Your task to perform on an android device: check data usage Image 0: 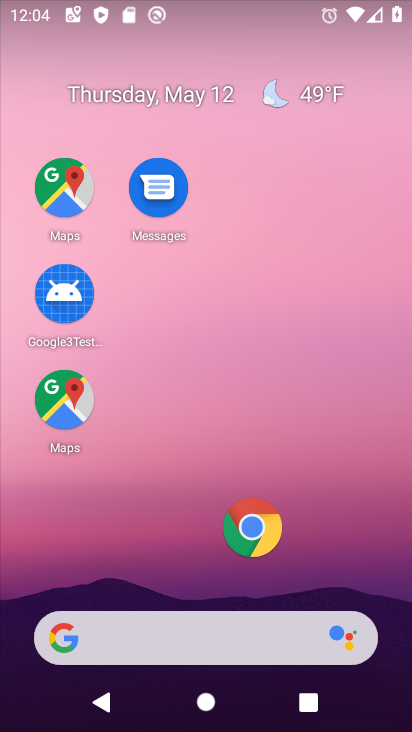
Step 0: drag from (258, 588) to (198, 188)
Your task to perform on an android device: check data usage Image 1: 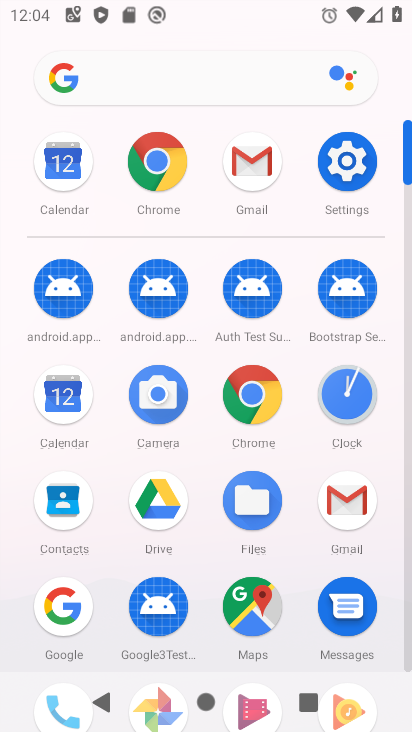
Step 1: click (338, 166)
Your task to perform on an android device: check data usage Image 2: 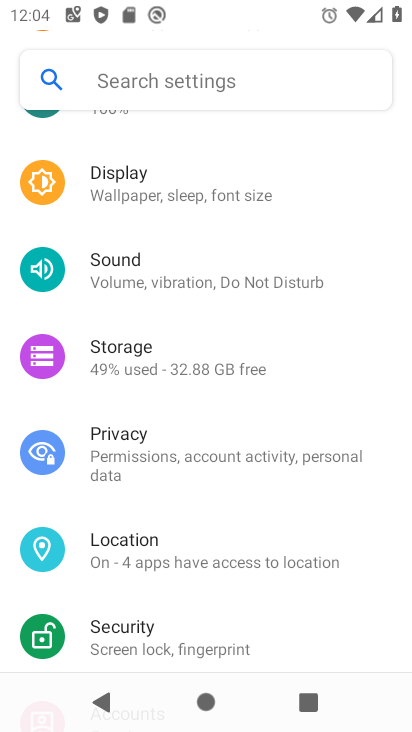
Step 2: drag from (338, 166) to (310, 465)
Your task to perform on an android device: check data usage Image 3: 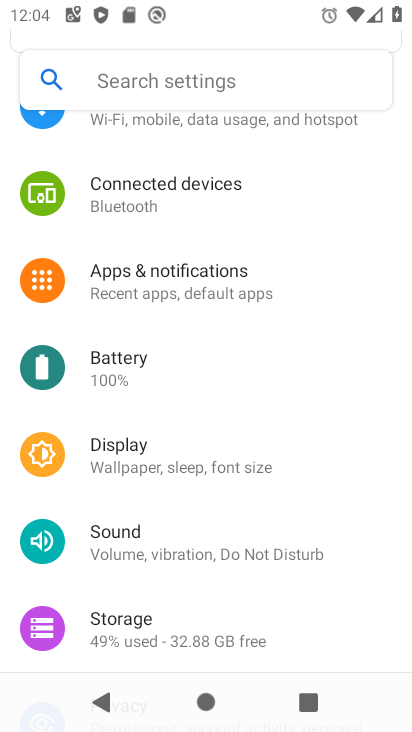
Step 3: click (217, 148)
Your task to perform on an android device: check data usage Image 4: 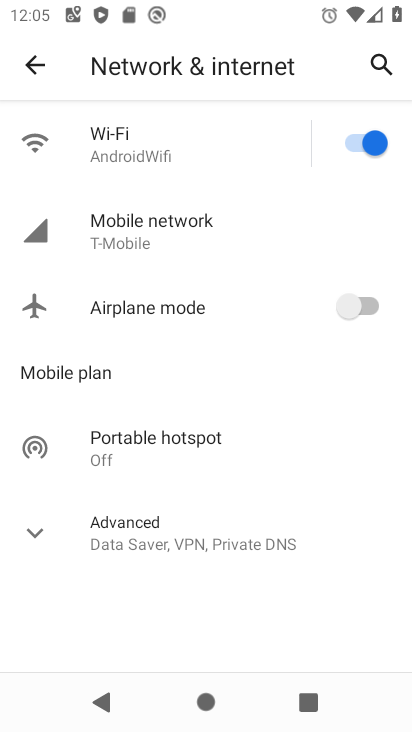
Step 4: click (164, 216)
Your task to perform on an android device: check data usage Image 5: 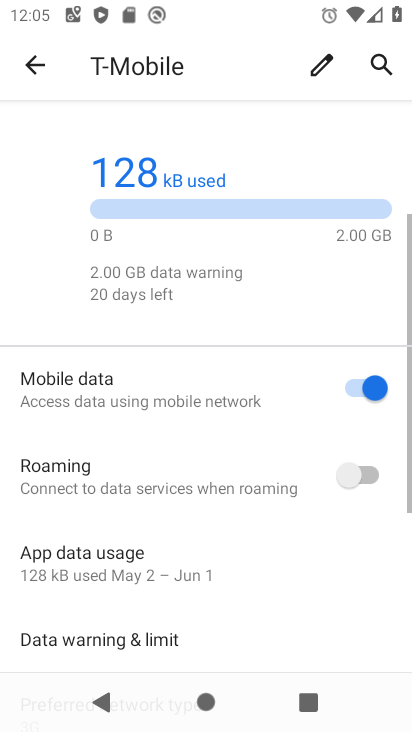
Step 5: task complete